Your task to perform on an android device: open device folders in google photos Image 0: 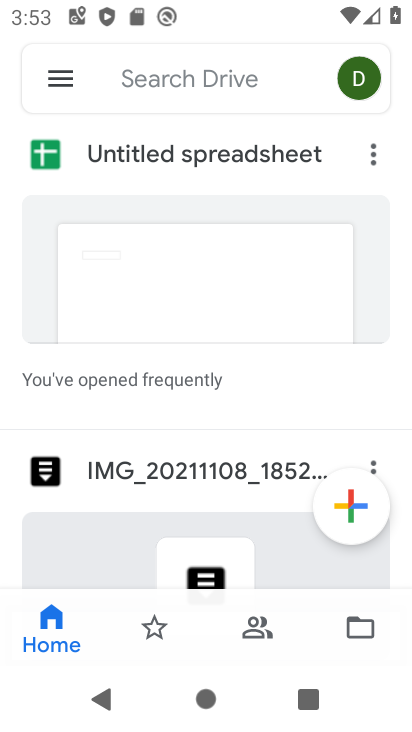
Step 0: press home button
Your task to perform on an android device: open device folders in google photos Image 1: 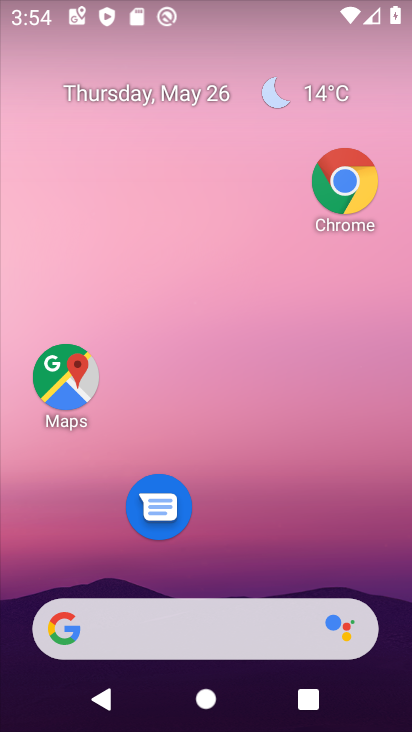
Step 1: drag from (288, 566) to (292, 63)
Your task to perform on an android device: open device folders in google photos Image 2: 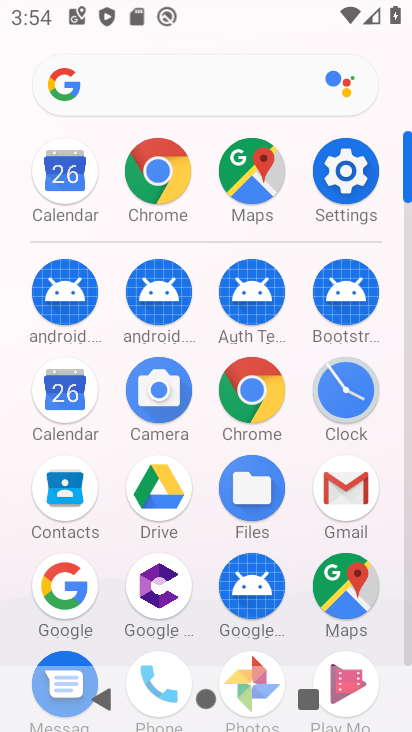
Step 2: drag from (291, 260) to (319, 64)
Your task to perform on an android device: open device folders in google photos Image 3: 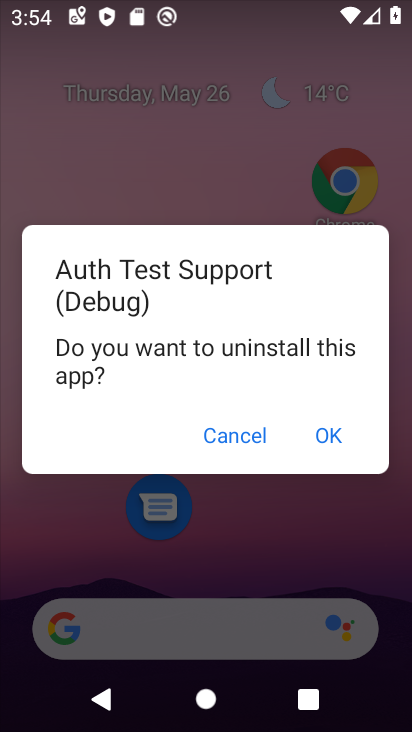
Step 3: click (293, 535)
Your task to perform on an android device: open device folders in google photos Image 4: 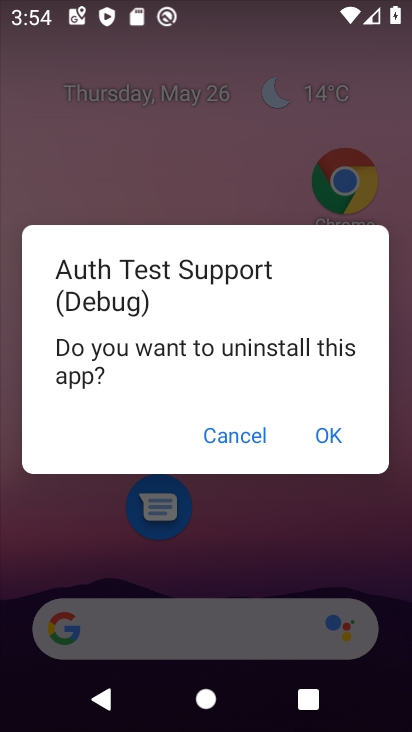
Step 4: click (248, 432)
Your task to perform on an android device: open device folders in google photos Image 5: 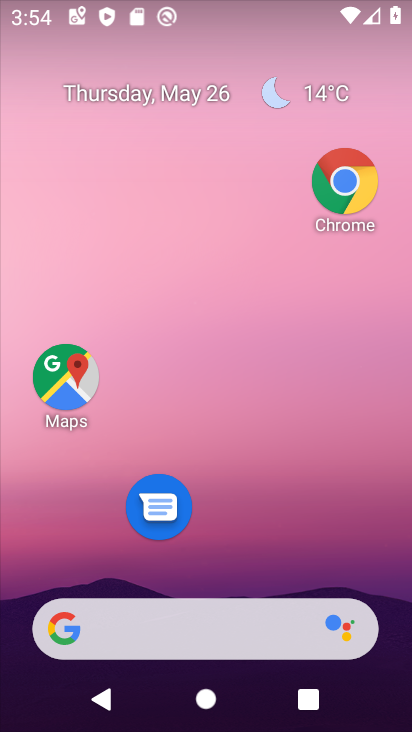
Step 5: drag from (307, 528) to (314, 60)
Your task to perform on an android device: open device folders in google photos Image 6: 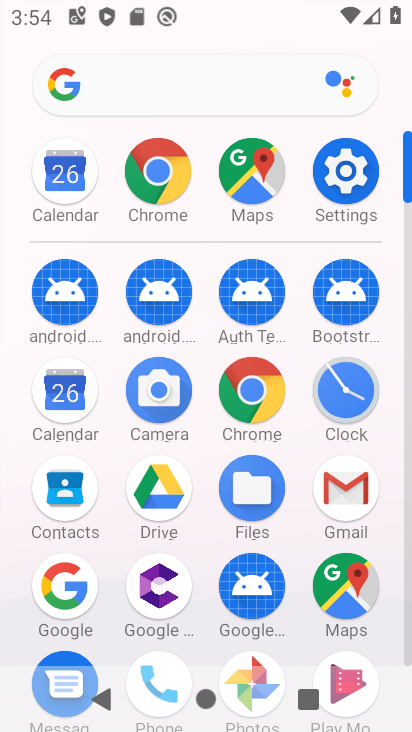
Step 6: drag from (295, 448) to (307, 148)
Your task to perform on an android device: open device folders in google photos Image 7: 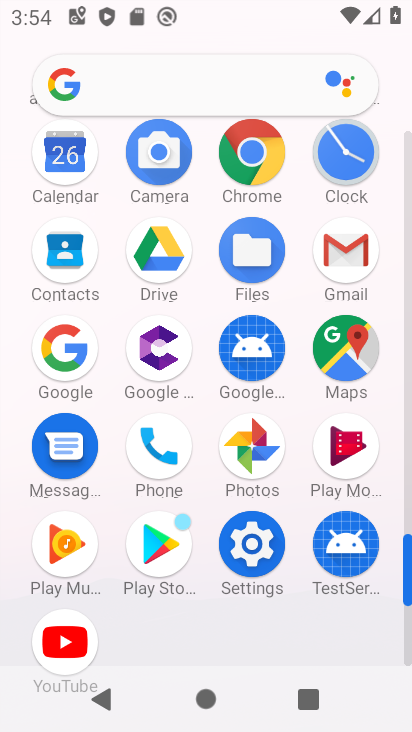
Step 7: click (251, 445)
Your task to perform on an android device: open device folders in google photos Image 8: 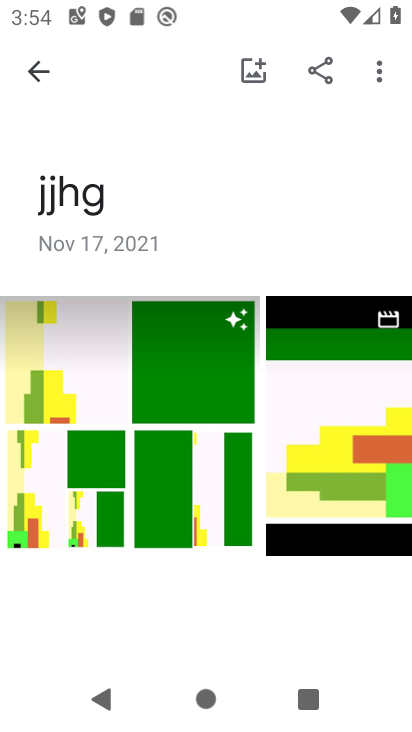
Step 8: click (44, 69)
Your task to perform on an android device: open device folders in google photos Image 9: 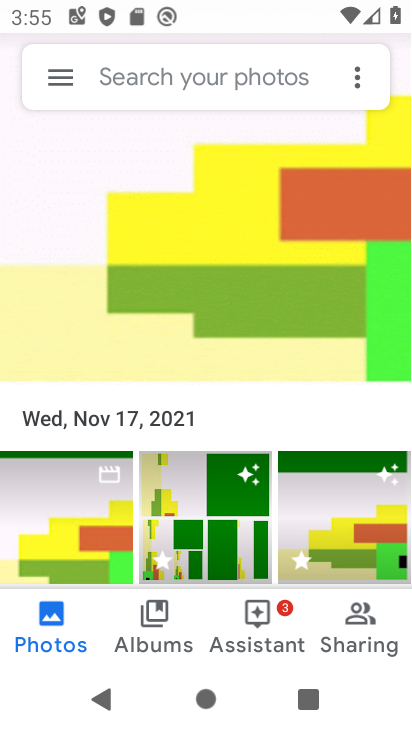
Step 9: click (52, 76)
Your task to perform on an android device: open device folders in google photos Image 10: 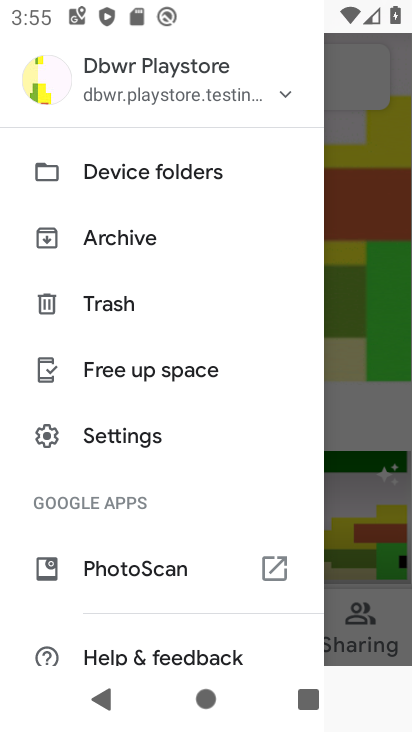
Step 10: click (152, 170)
Your task to perform on an android device: open device folders in google photos Image 11: 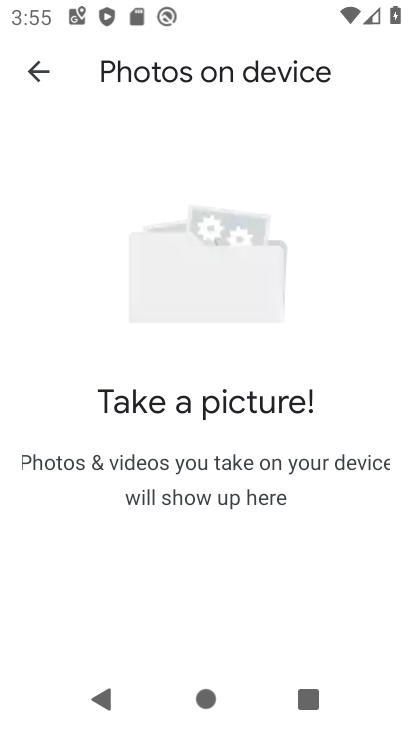
Step 11: task complete